Your task to perform on an android device: turn on airplane mode Image 0: 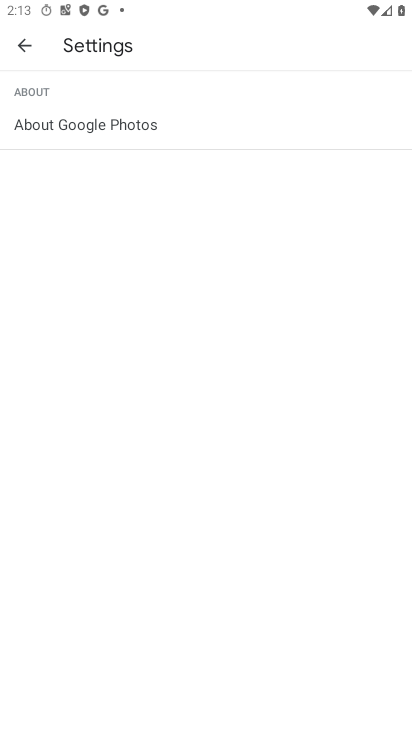
Step 0: press home button
Your task to perform on an android device: turn on airplane mode Image 1: 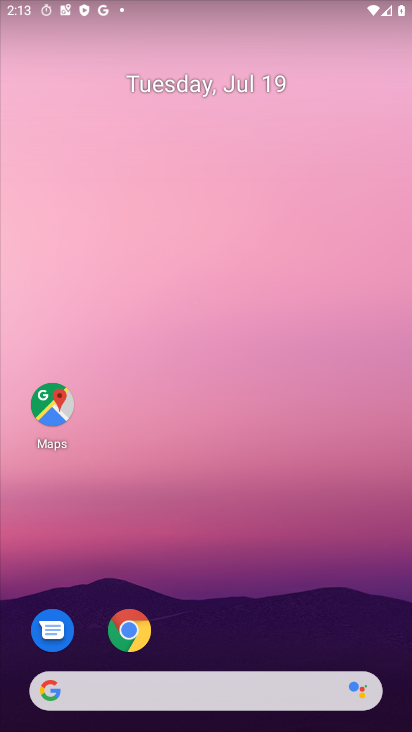
Step 1: drag from (258, 585) to (347, 42)
Your task to perform on an android device: turn on airplane mode Image 2: 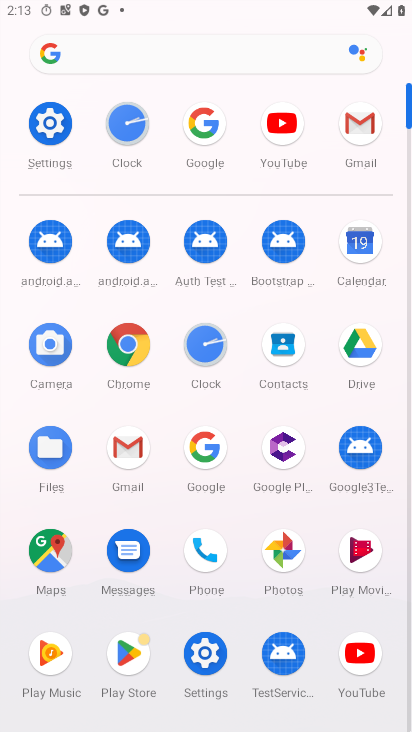
Step 2: click (40, 136)
Your task to perform on an android device: turn on airplane mode Image 3: 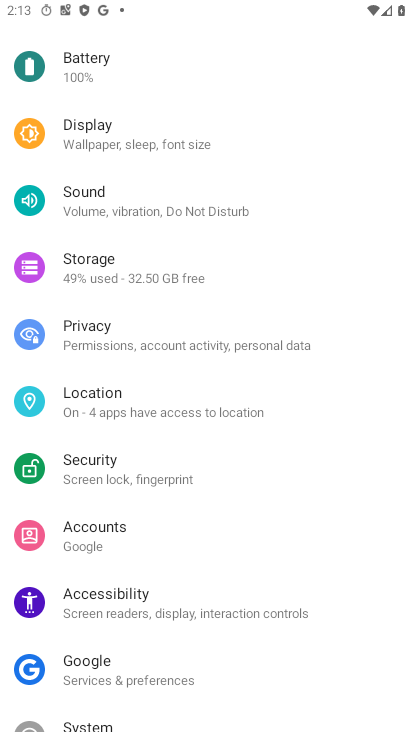
Step 3: drag from (135, 136) to (179, 411)
Your task to perform on an android device: turn on airplane mode Image 4: 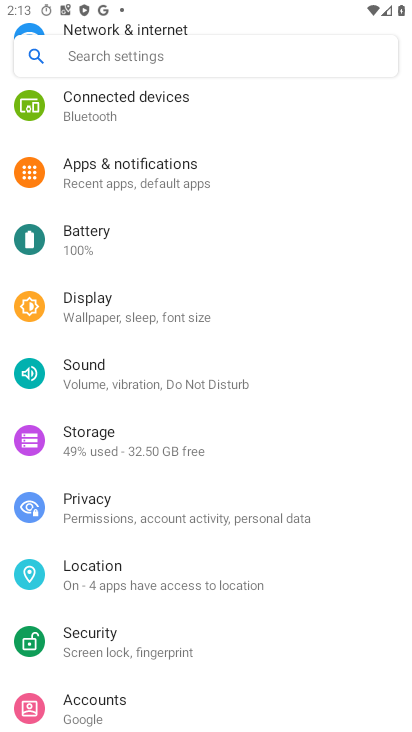
Step 4: drag from (121, 212) to (170, 478)
Your task to perform on an android device: turn on airplane mode Image 5: 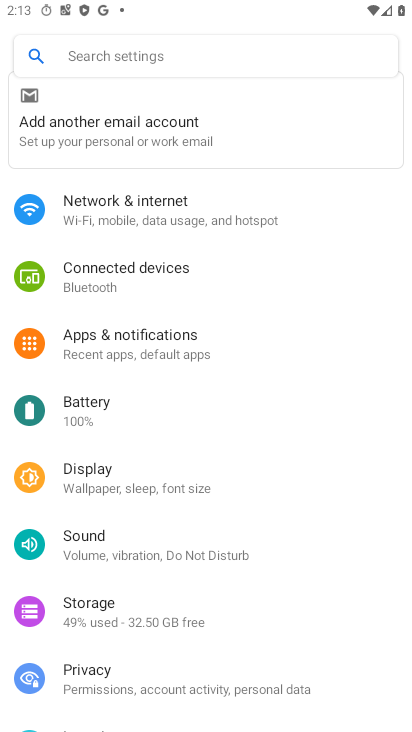
Step 5: click (215, 223)
Your task to perform on an android device: turn on airplane mode Image 6: 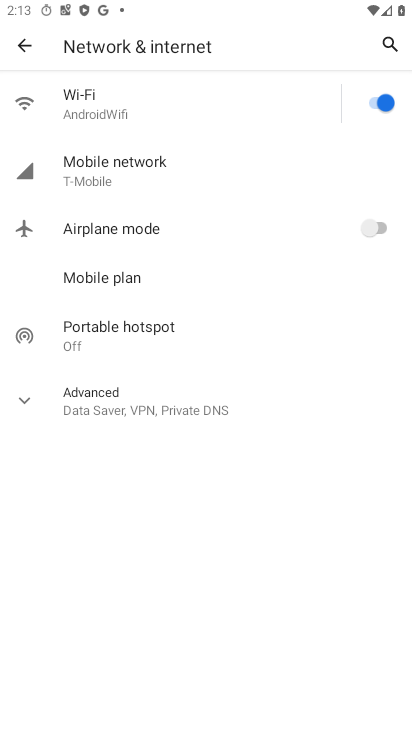
Step 6: click (372, 223)
Your task to perform on an android device: turn on airplane mode Image 7: 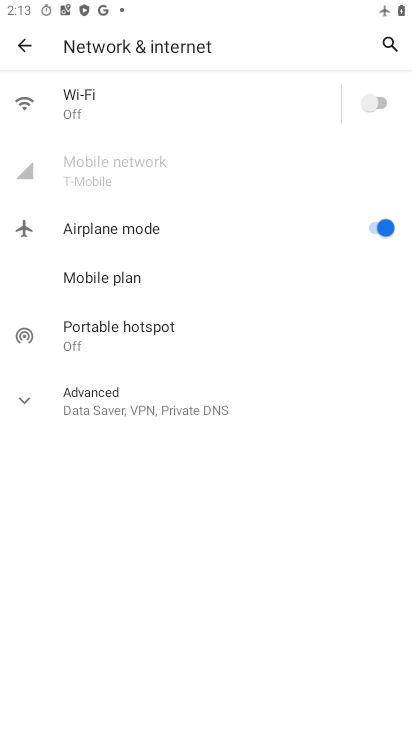
Step 7: task complete